Your task to perform on an android device: read, delete, or share a saved page in the chrome app Image 0: 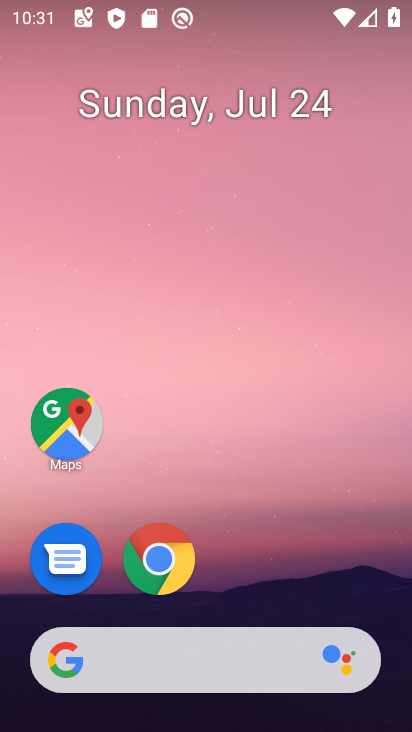
Step 0: click (156, 551)
Your task to perform on an android device: read, delete, or share a saved page in the chrome app Image 1: 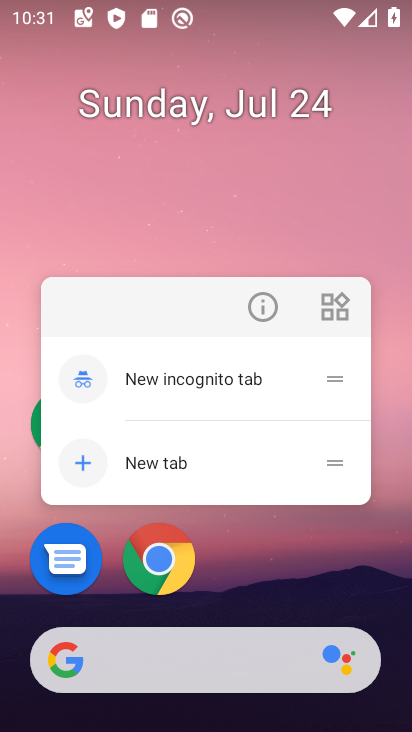
Step 1: click (156, 559)
Your task to perform on an android device: read, delete, or share a saved page in the chrome app Image 2: 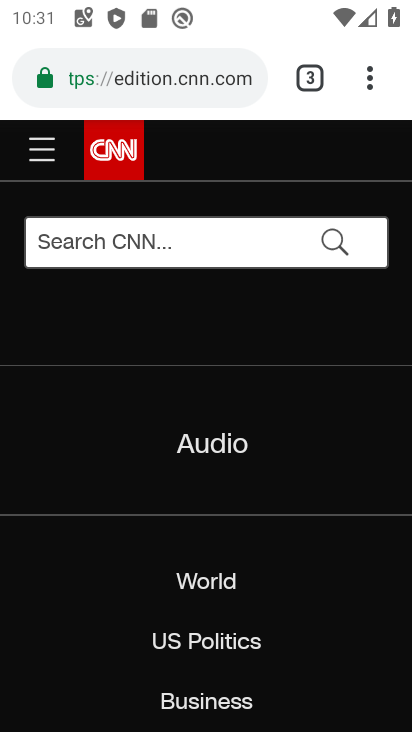
Step 2: drag from (374, 74) to (95, 503)
Your task to perform on an android device: read, delete, or share a saved page in the chrome app Image 3: 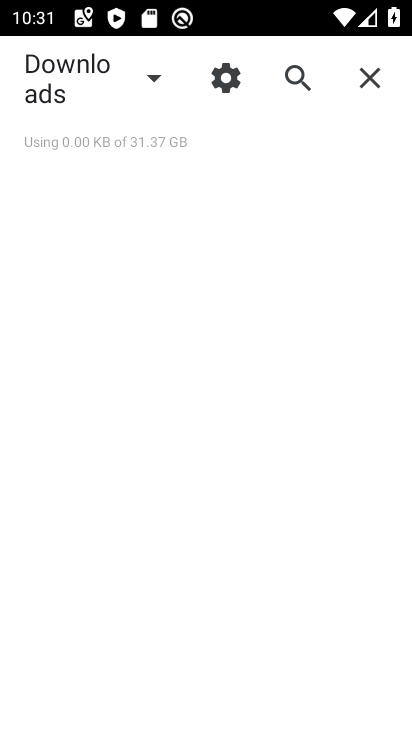
Step 3: click (148, 80)
Your task to perform on an android device: read, delete, or share a saved page in the chrome app Image 4: 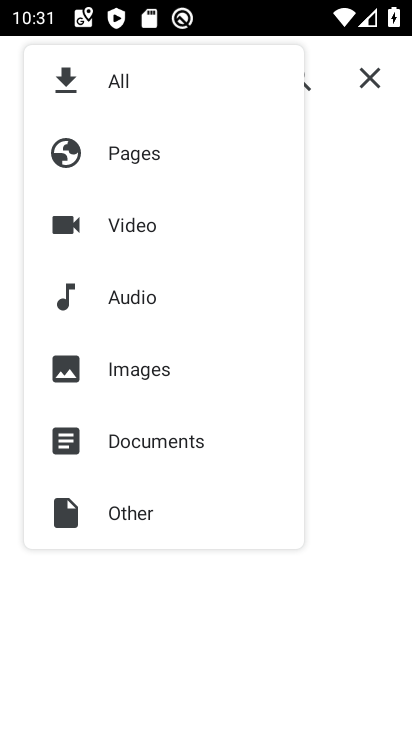
Step 4: click (132, 152)
Your task to perform on an android device: read, delete, or share a saved page in the chrome app Image 5: 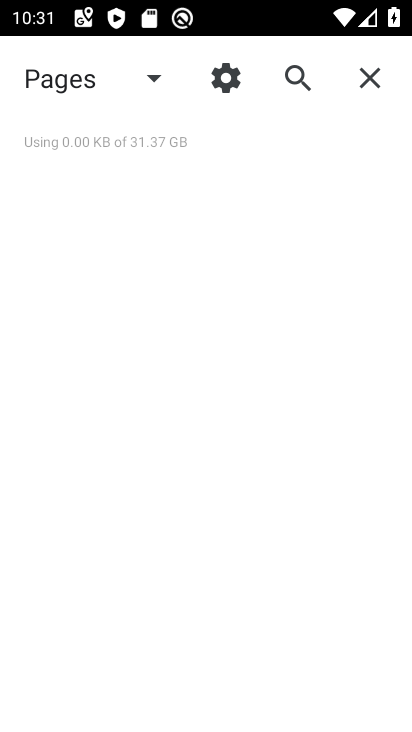
Step 5: task complete